Your task to perform on an android device: open device folders in google photos Image 0: 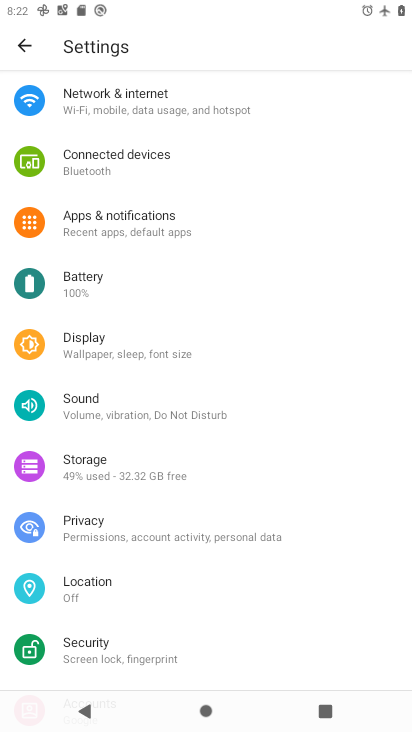
Step 0: press home button
Your task to perform on an android device: open device folders in google photos Image 1: 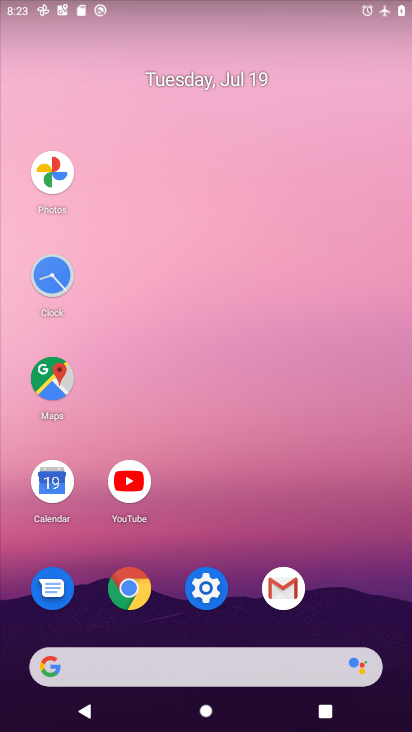
Step 1: click (47, 155)
Your task to perform on an android device: open device folders in google photos Image 2: 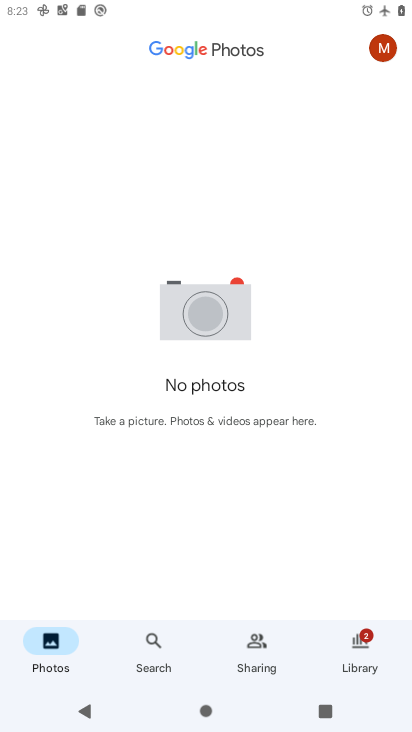
Step 2: click (386, 45)
Your task to perform on an android device: open device folders in google photos Image 3: 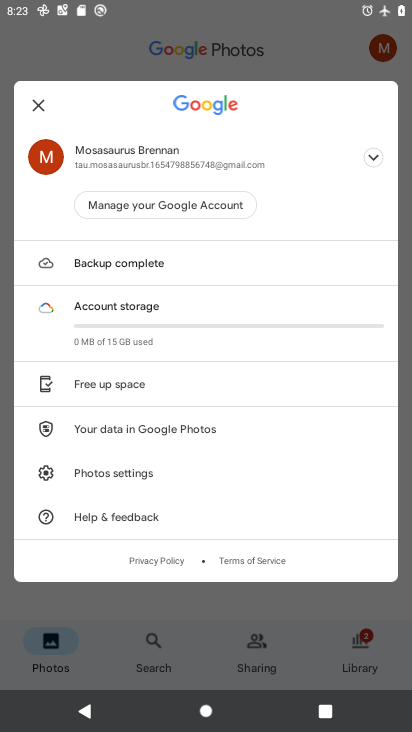
Step 3: click (364, 645)
Your task to perform on an android device: open device folders in google photos Image 4: 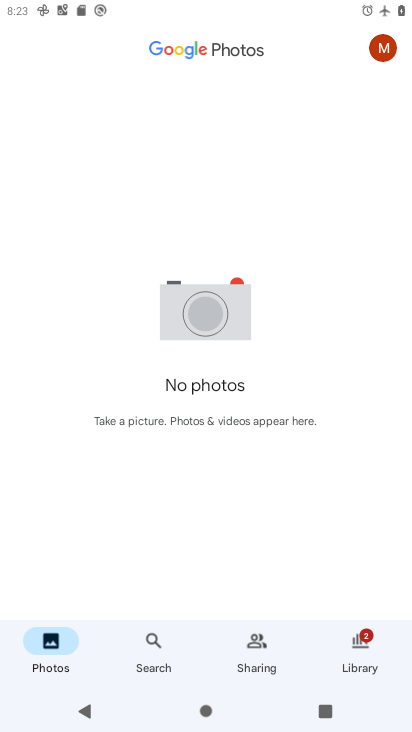
Step 4: click (153, 638)
Your task to perform on an android device: open device folders in google photos Image 5: 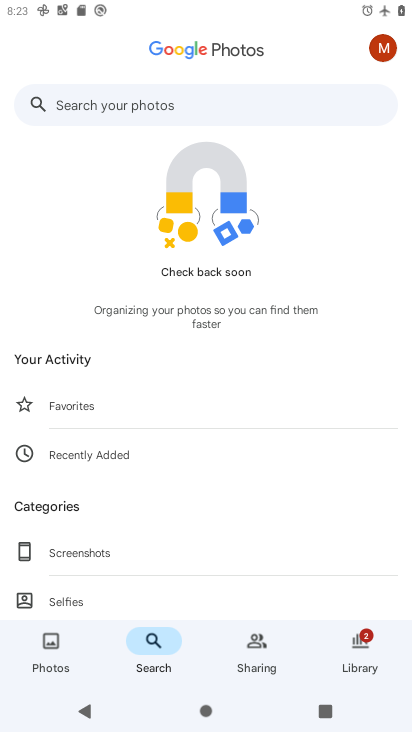
Step 5: click (122, 103)
Your task to perform on an android device: open device folders in google photos Image 6: 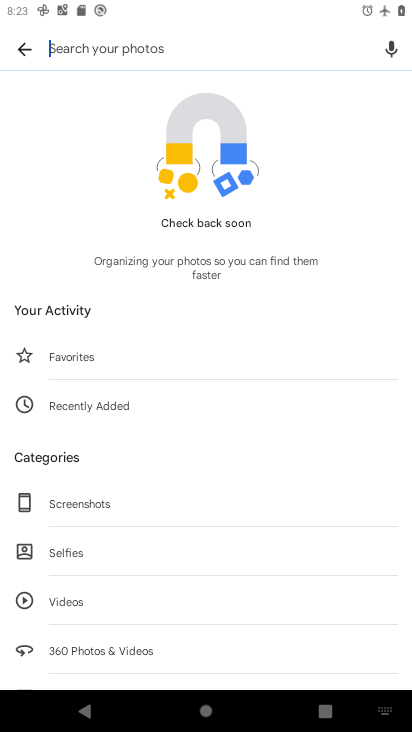
Step 6: type "device"
Your task to perform on an android device: open device folders in google photos Image 7: 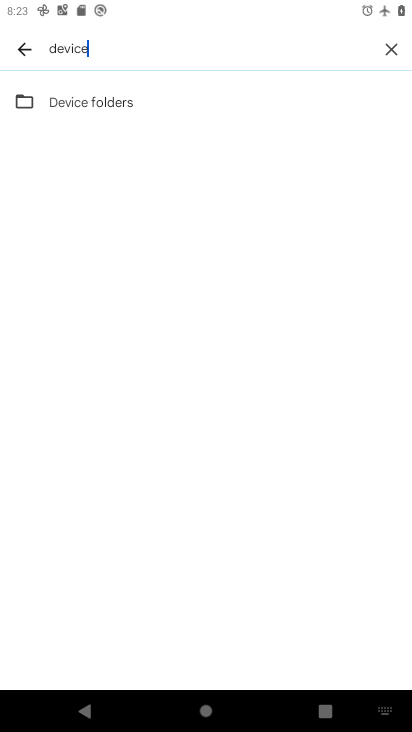
Step 7: click (110, 100)
Your task to perform on an android device: open device folders in google photos Image 8: 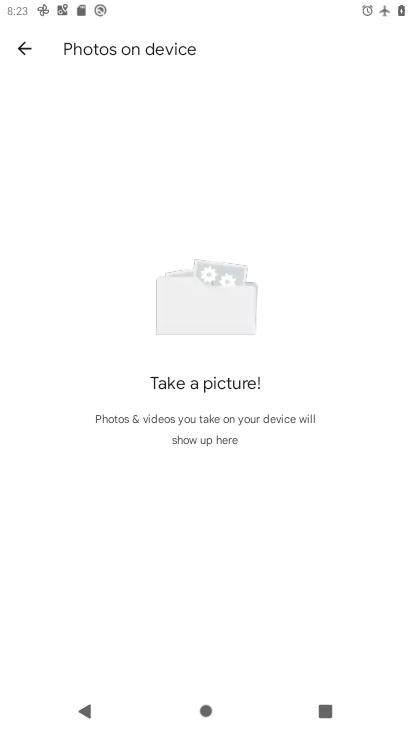
Step 8: task complete